Your task to perform on an android device: Find coffee shops on Maps Image 0: 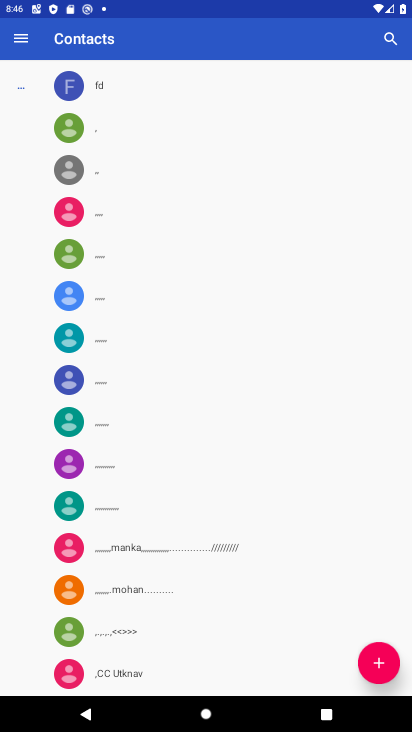
Step 0: press back button
Your task to perform on an android device: Find coffee shops on Maps Image 1: 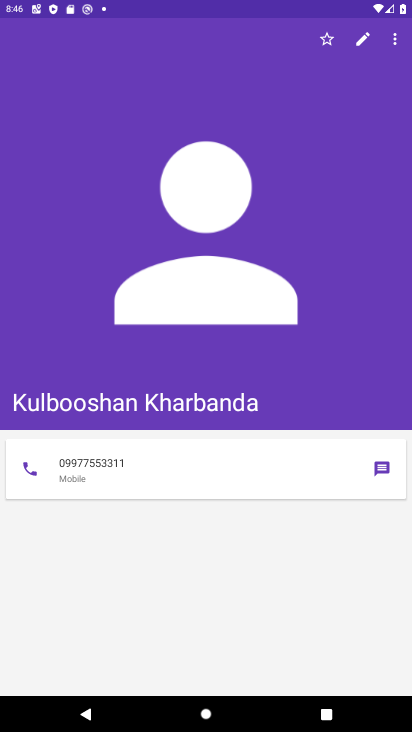
Step 1: press back button
Your task to perform on an android device: Find coffee shops on Maps Image 2: 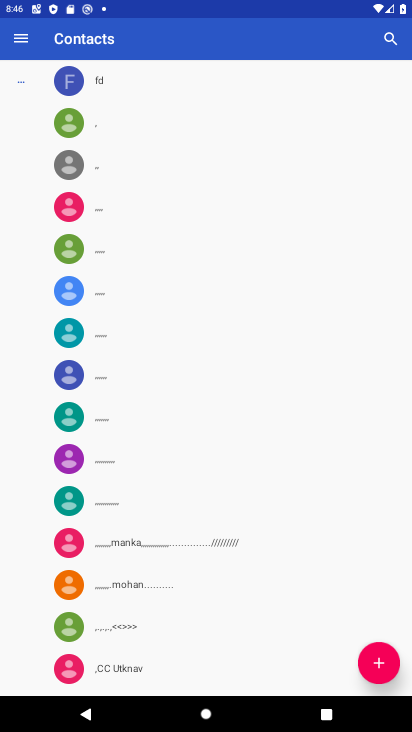
Step 2: press back button
Your task to perform on an android device: Find coffee shops on Maps Image 3: 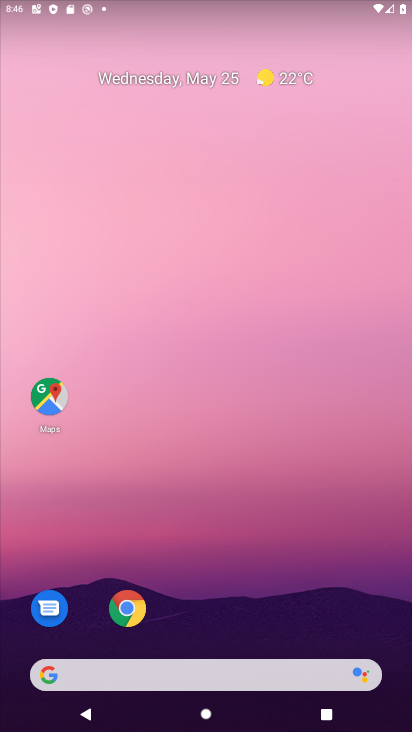
Step 3: click (49, 397)
Your task to perform on an android device: Find coffee shops on Maps Image 4: 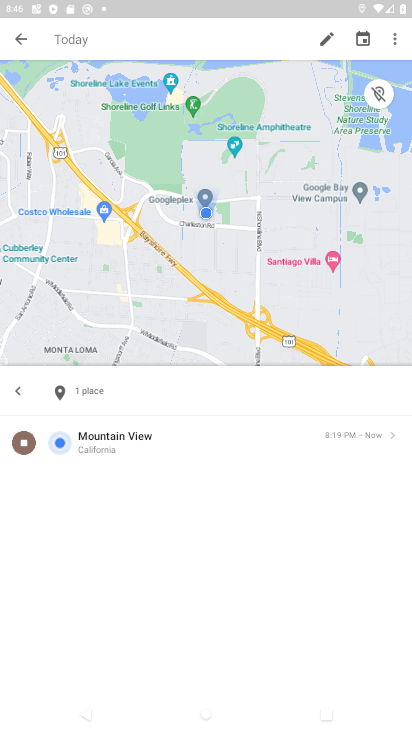
Step 4: click (18, 45)
Your task to perform on an android device: Find coffee shops on Maps Image 5: 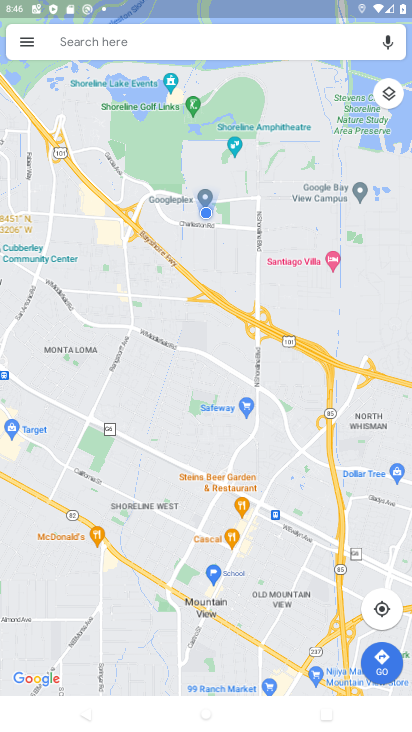
Step 5: click (89, 38)
Your task to perform on an android device: Find coffee shops on Maps Image 6: 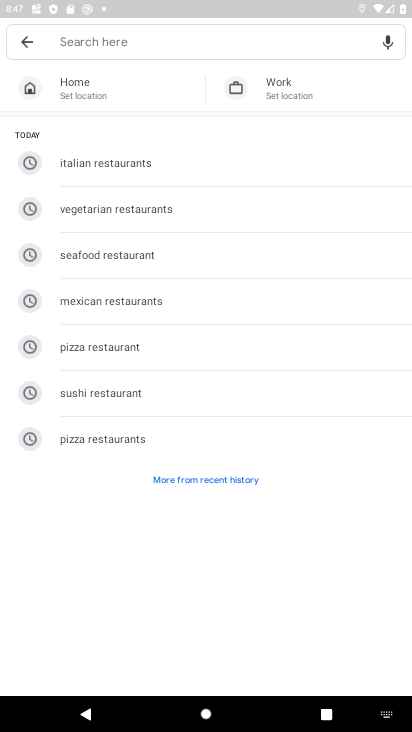
Step 6: type "coffee shops"
Your task to perform on an android device: Find coffee shops on Maps Image 7: 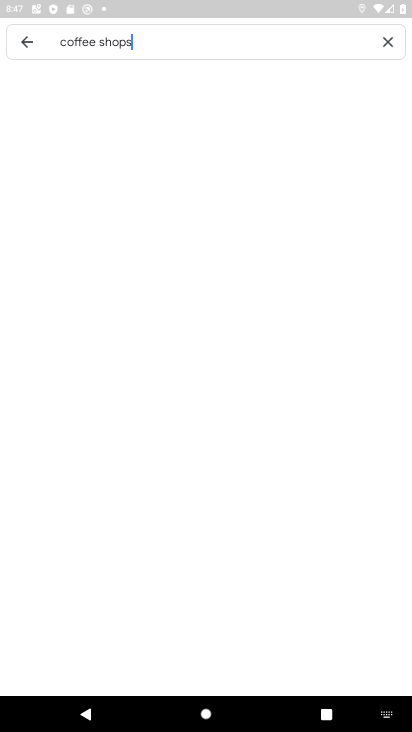
Step 7: type ""
Your task to perform on an android device: Find coffee shops on Maps Image 8: 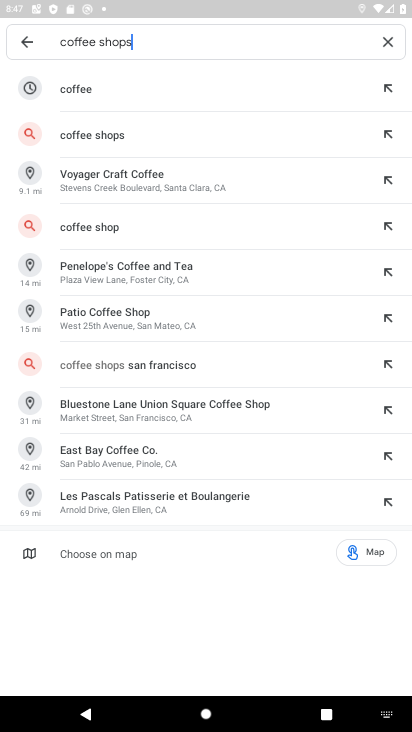
Step 8: click (113, 139)
Your task to perform on an android device: Find coffee shops on Maps Image 9: 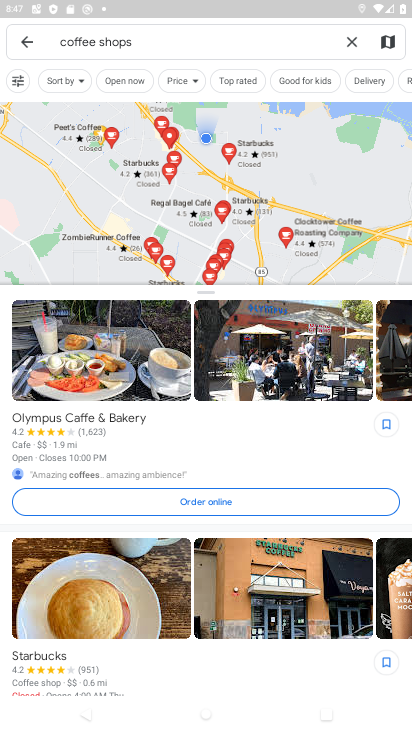
Step 9: task complete